Your task to perform on an android device: When is my next meeting? Image 0: 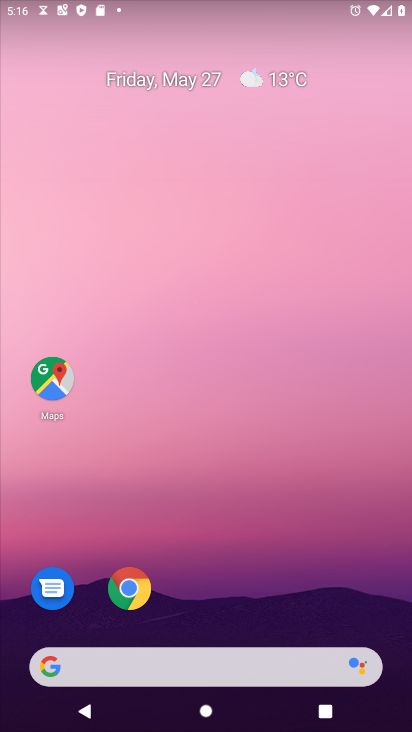
Step 0: click (194, 660)
Your task to perform on an android device: When is my next meeting? Image 1: 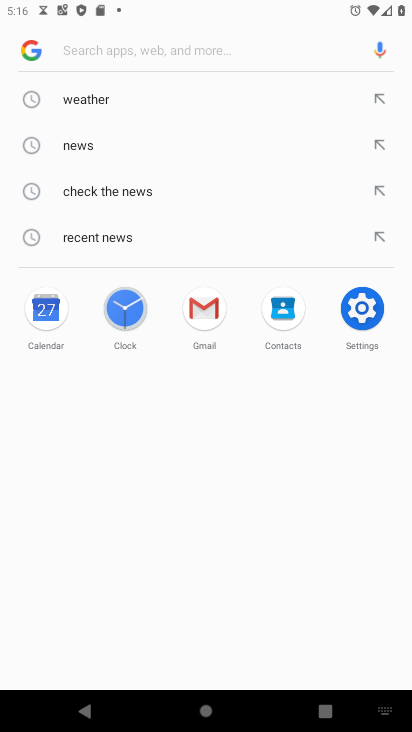
Step 1: press back button
Your task to perform on an android device: When is my next meeting? Image 2: 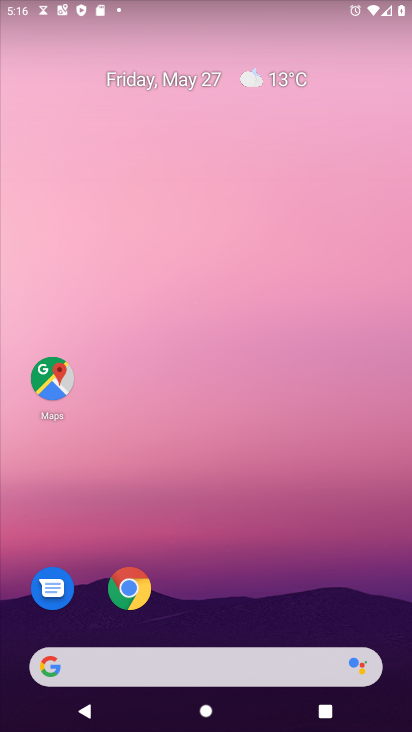
Step 2: drag from (259, 586) to (269, 2)
Your task to perform on an android device: When is my next meeting? Image 3: 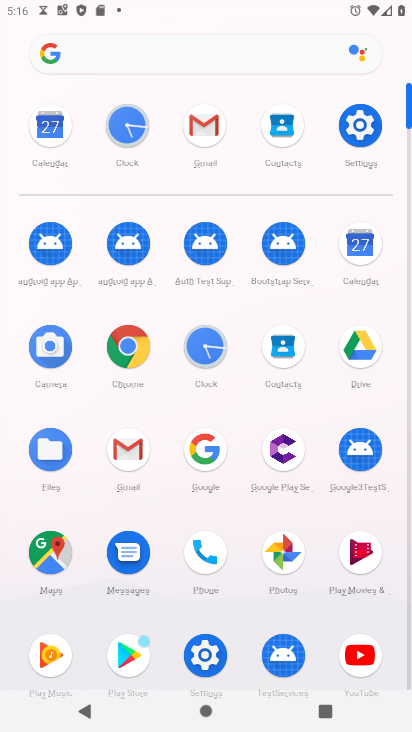
Step 3: click (359, 251)
Your task to perform on an android device: When is my next meeting? Image 4: 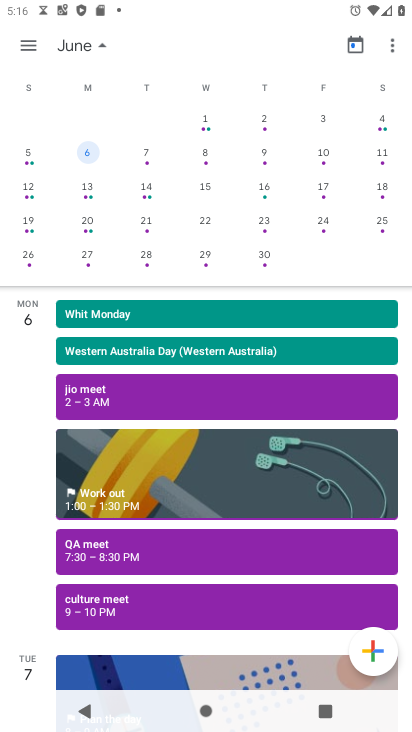
Step 4: drag from (36, 212) to (389, 137)
Your task to perform on an android device: When is my next meeting? Image 5: 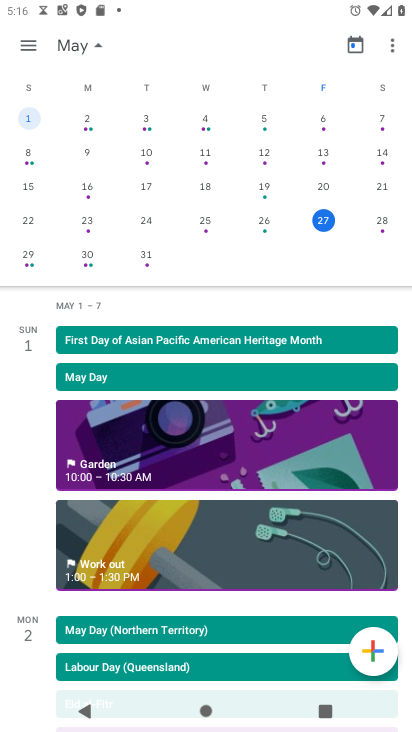
Step 5: drag from (203, 569) to (296, 152)
Your task to perform on an android device: When is my next meeting? Image 6: 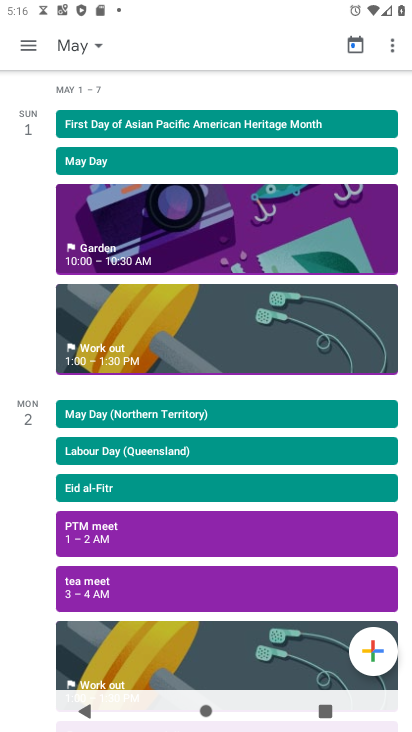
Step 6: click (79, 594)
Your task to perform on an android device: When is my next meeting? Image 7: 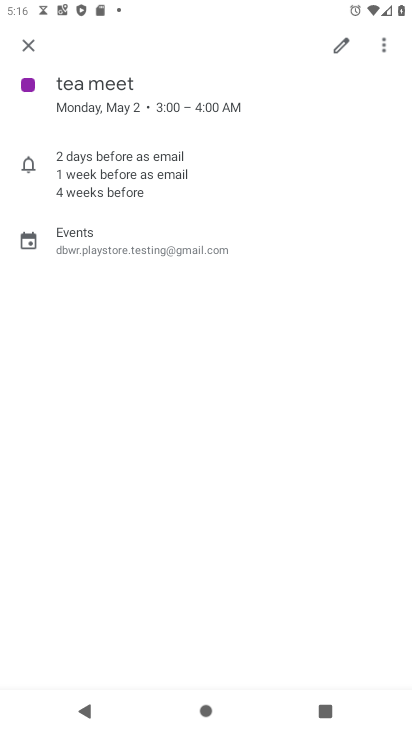
Step 7: task complete